Your task to perform on an android device: star an email in the gmail app Image 0: 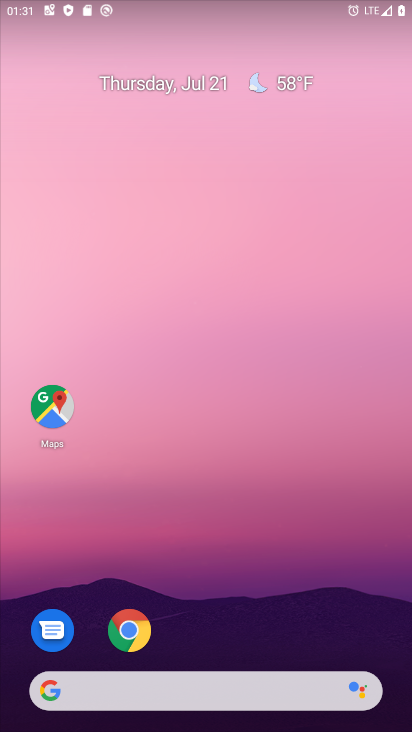
Step 0: drag from (189, 659) to (161, 20)
Your task to perform on an android device: star an email in the gmail app Image 1: 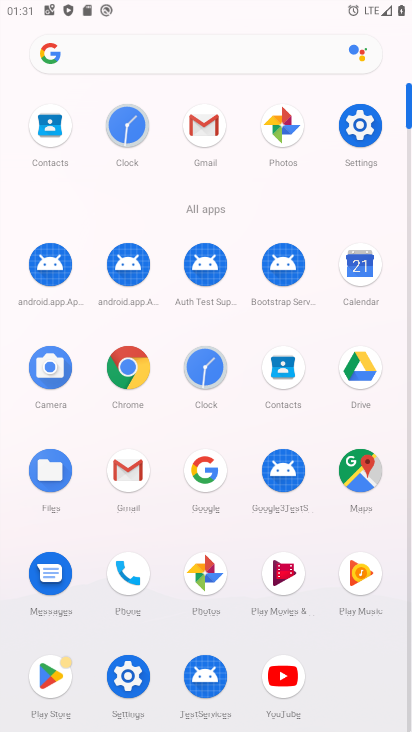
Step 1: click (205, 130)
Your task to perform on an android device: star an email in the gmail app Image 2: 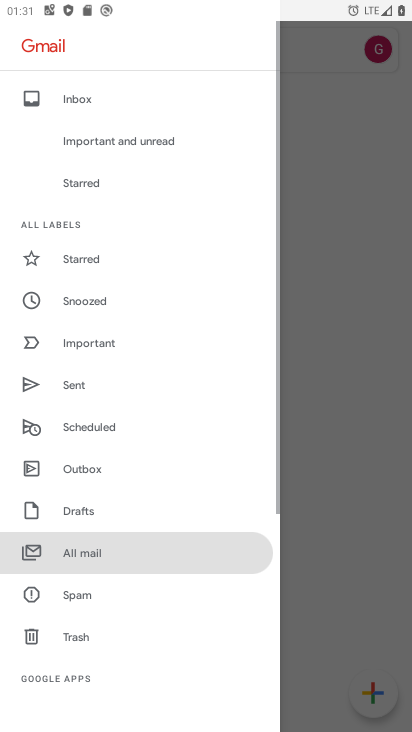
Step 2: click (353, 200)
Your task to perform on an android device: star an email in the gmail app Image 3: 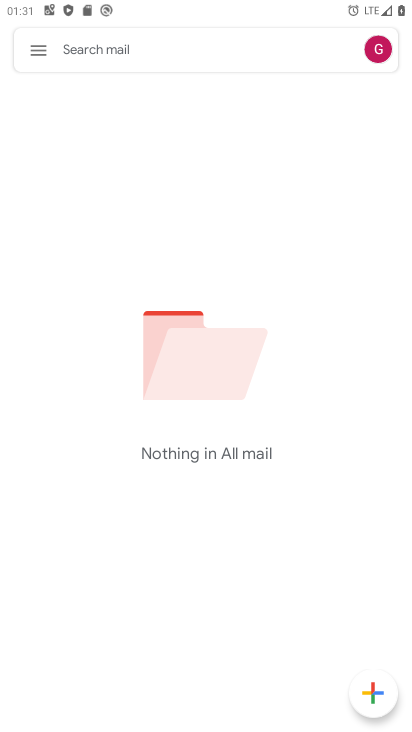
Step 3: task complete